Your task to perform on an android device: Turn off the flashlight Image 0: 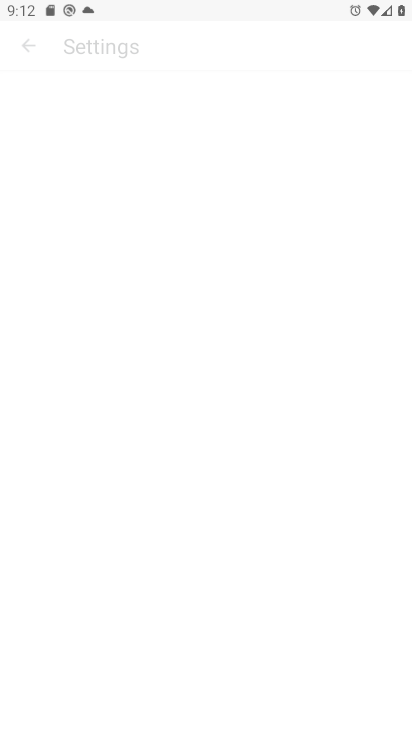
Step 0: click (50, 690)
Your task to perform on an android device: Turn off the flashlight Image 1: 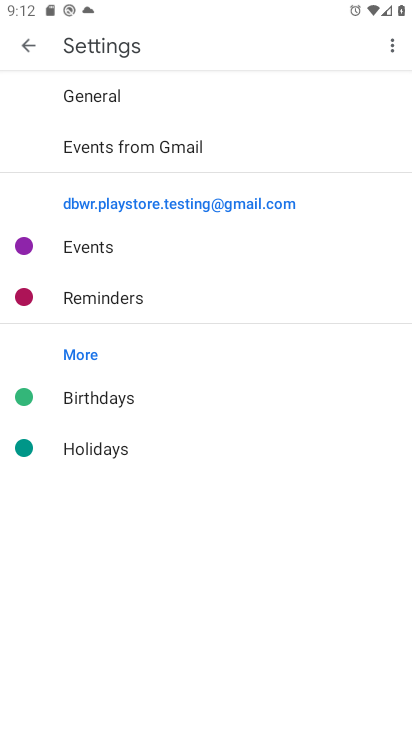
Step 1: press home button
Your task to perform on an android device: Turn off the flashlight Image 2: 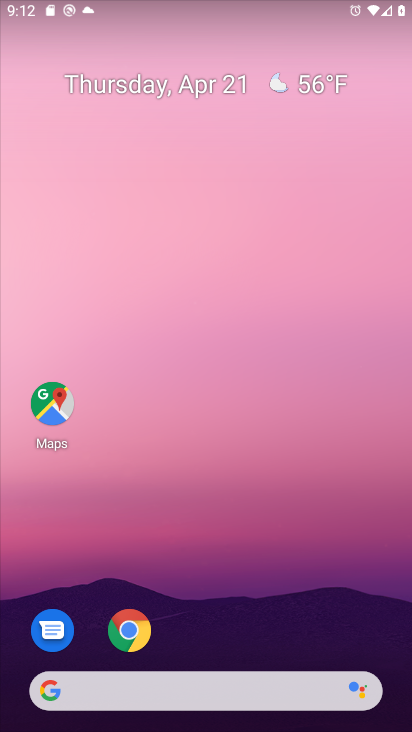
Step 2: drag from (232, 550) to (266, 11)
Your task to perform on an android device: Turn off the flashlight Image 3: 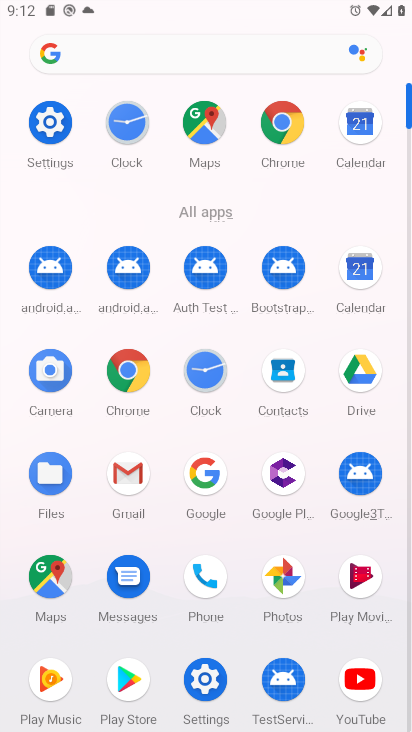
Step 3: click (58, 227)
Your task to perform on an android device: Turn off the flashlight Image 4: 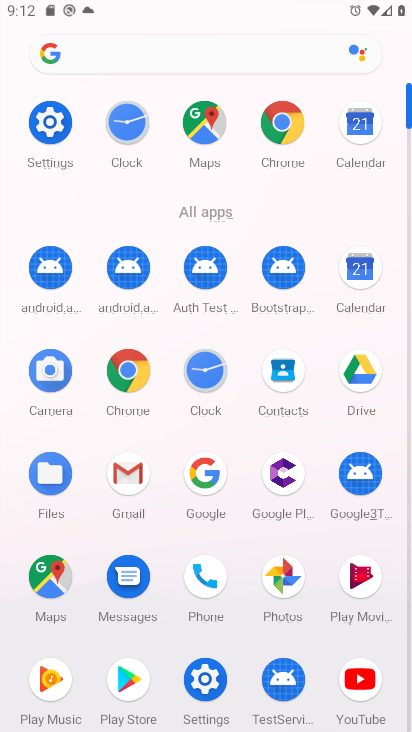
Step 4: click (57, 133)
Your task to perform on an android device: Turn off the flashlight Image 5: 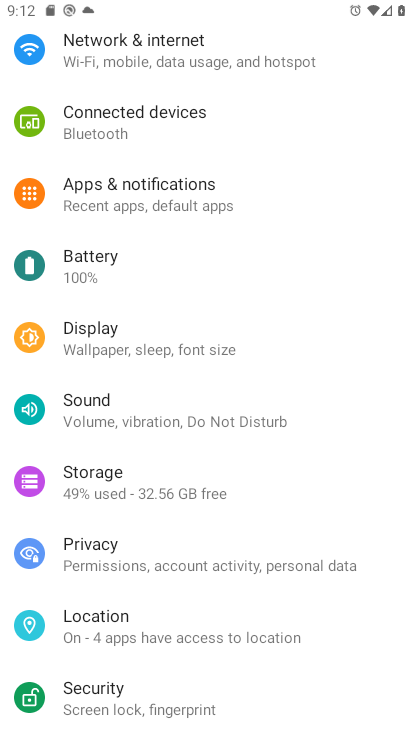
Step 5: drag from (216, 117) to (198, 604)
Your task to perform on an android device: Turn off the flashlight Image 6: 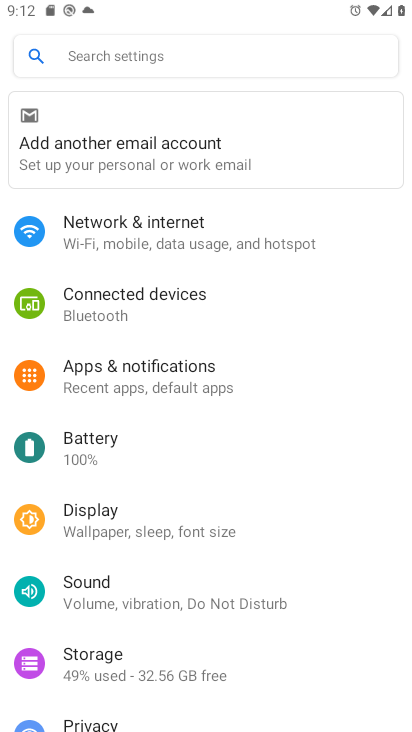
Step 6: click (181, 56)
Your task to perform on an android device: Turn off the flashlight Image 7: 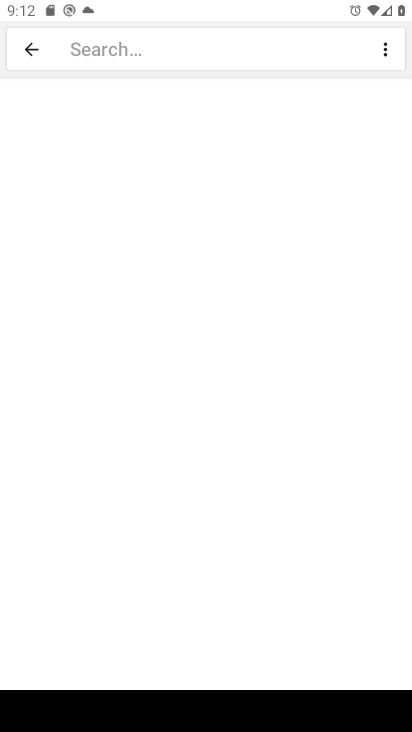
Step 7: type "flashlight"
Your task to perform on an android device: Turn off the flashlight Image 8: 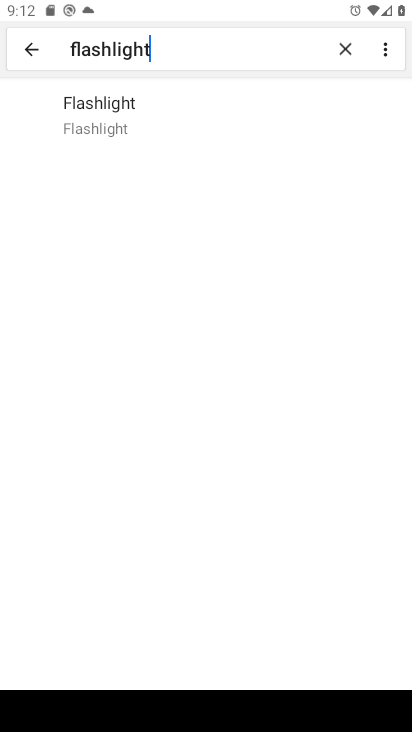
Step 8: click (251, 99)
Your task to perform on an android device: Turn off the flashlight Image 9: 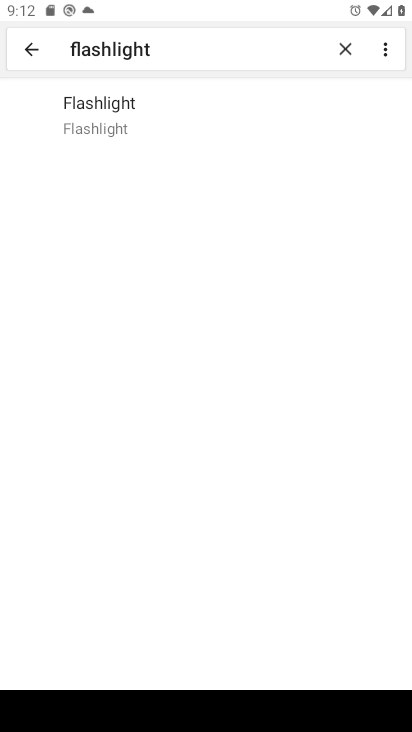
Step 9: click (251, 99)
Your task to perform on an android device: Turn off the flashlight Image 10: 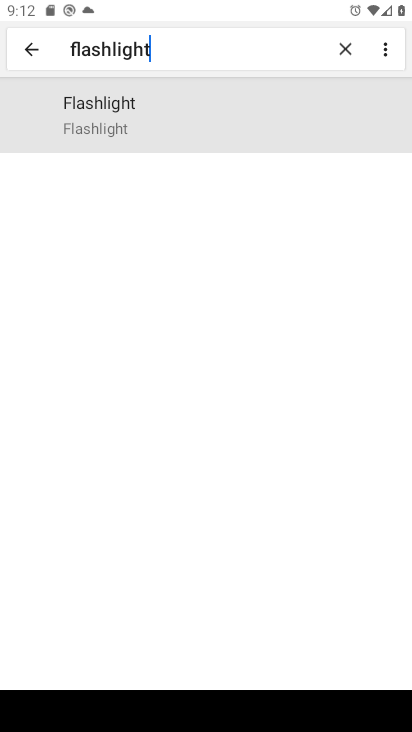
Step 10: click (251, 99)
Your task to perform on an android device: Turn off the flashlight Image 11: 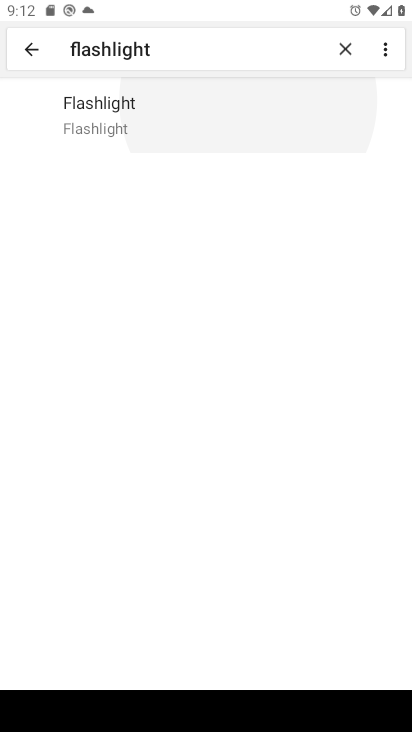
Step 11: click (330, 125)
Your task to perform on an android device: Turn off the flashlight Image 12: 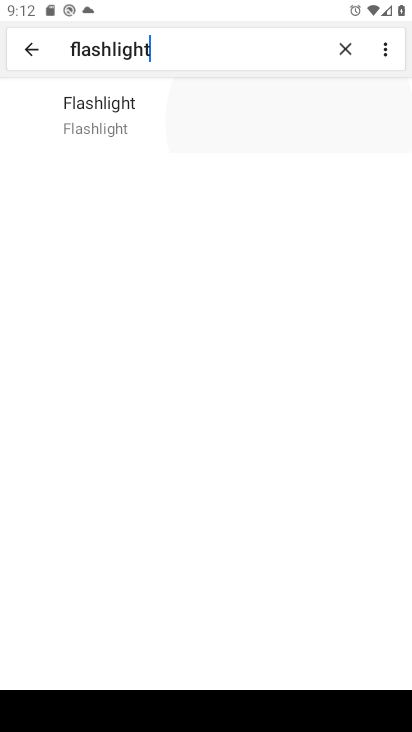
Step 12: click (341, 124)
Your task to perform on an android device: Turn off the flashlight Image 13: 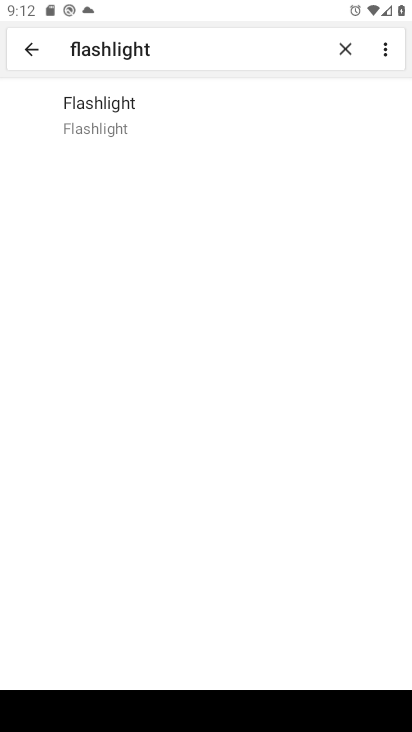
Step 13: task complete